Your task to perform on an android device: What's the weather going to be tomorrow? Image 0: 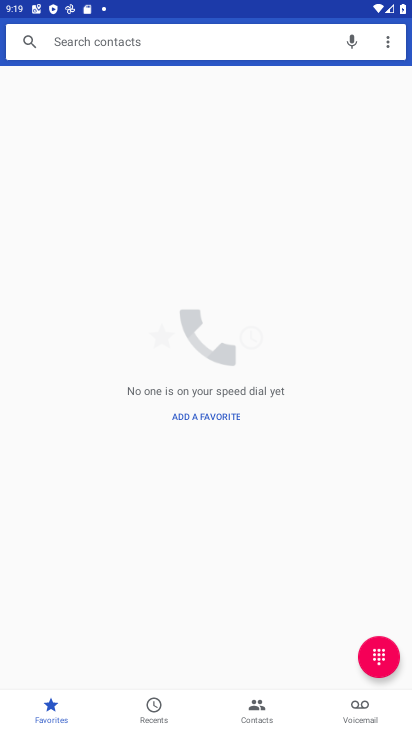
Step 0: press home button
Your task to perform on an android device: What's the weather going to be tomorrow? Image 1: 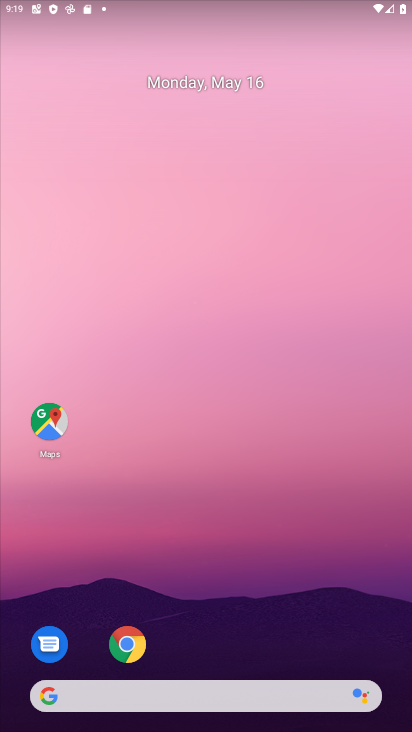
Step 1: type "What's the weather going to be tomorrow?"
Your task to perform on an android device: What's the weather going to be tomorrow? Image 2: 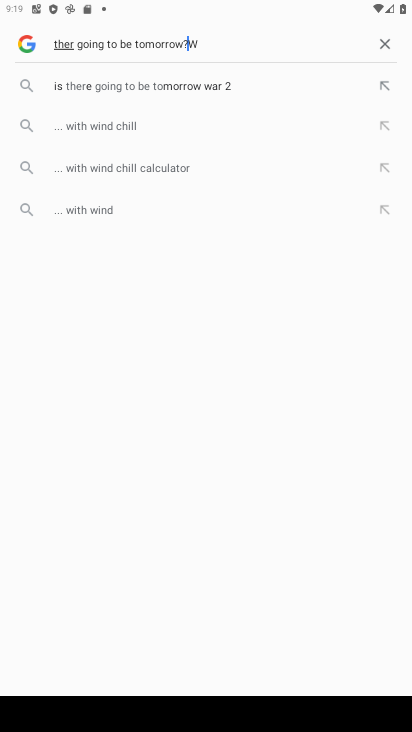
Step 2: click (392, 43)
Your task to perform on an android device: What's the weather going to be tomorrow? Image 3: 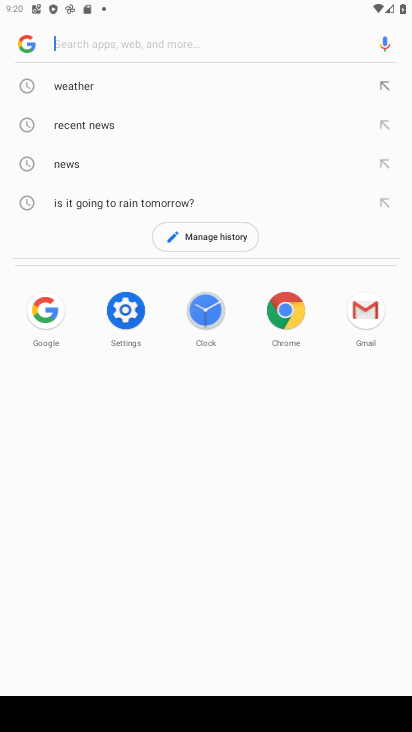
Step 3: type "What's the weather going to be tomorrow?"
Your task to perform on an android device: What's the weather going to be tomorrow? Image 4: 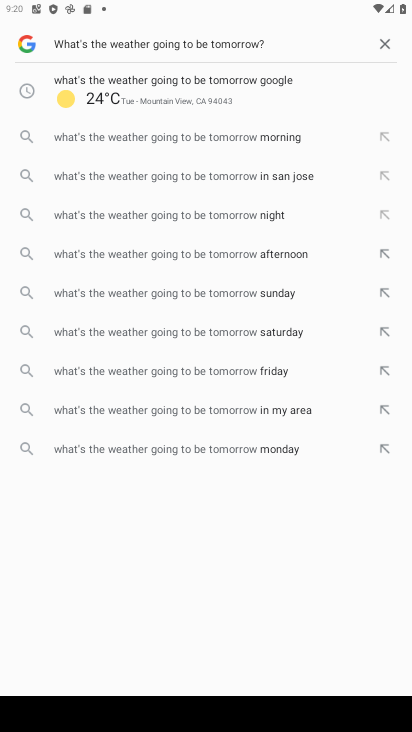
Step 4: click (246, 85)
Your task to perform on an android device: What's the weather going to be tomorrow? Image 5: 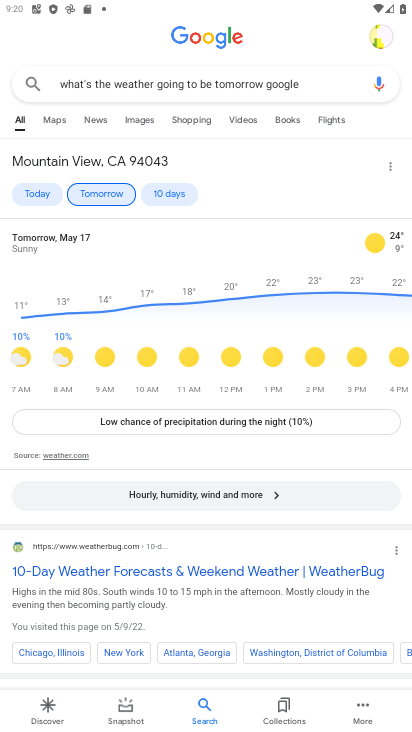
Step 5: task complete